Your task to perform on an android device: check data usage Image 0: 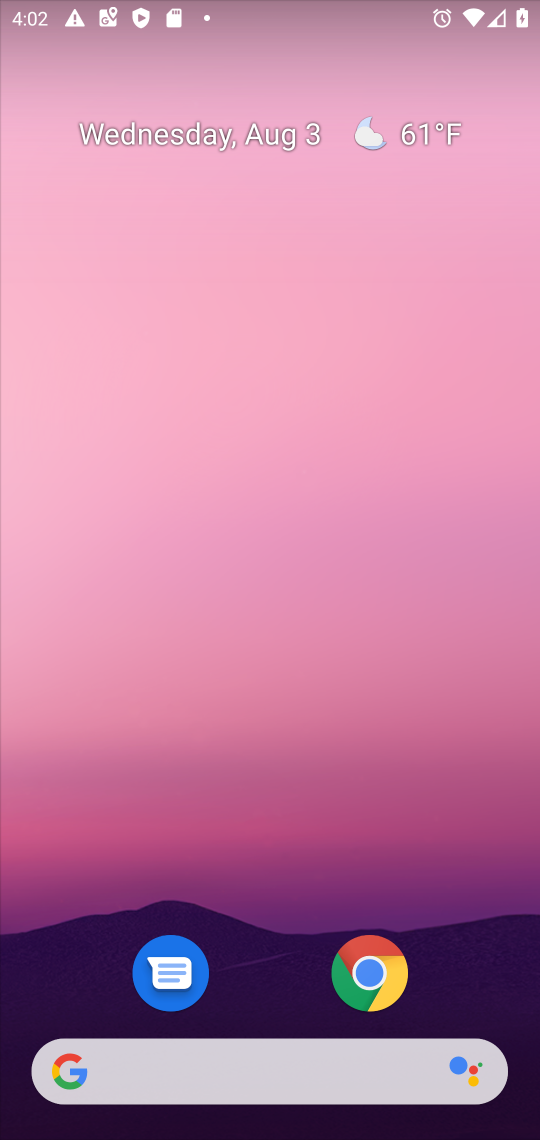
Step 0: drag from (279, 802) to (225, 0)
Your task to perform on an android device: check data usage Image 1: 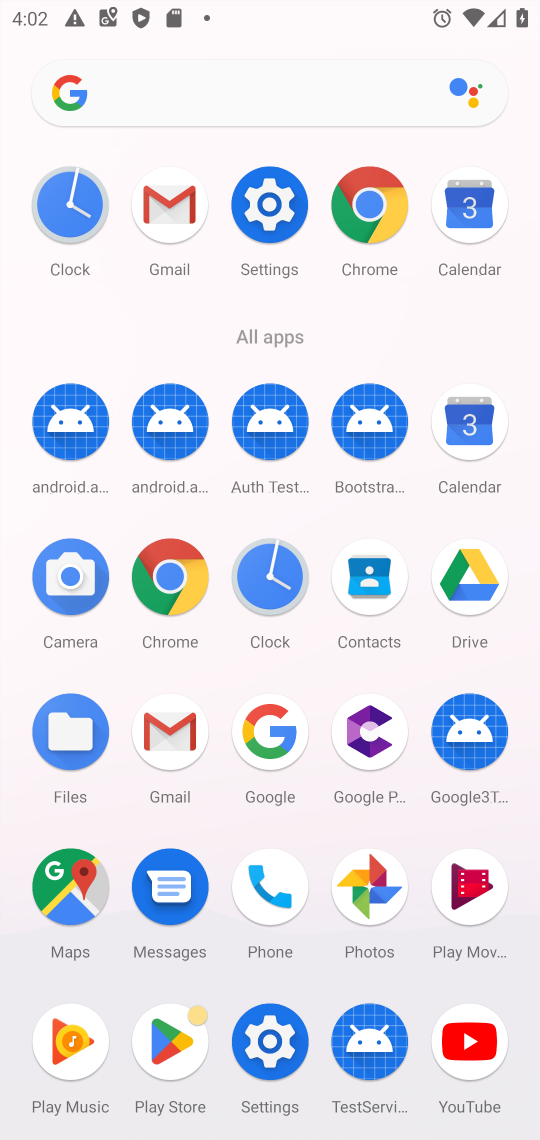
Step 1: click (272, 204)
Your task to perform on an android device: check data usage Image 2: 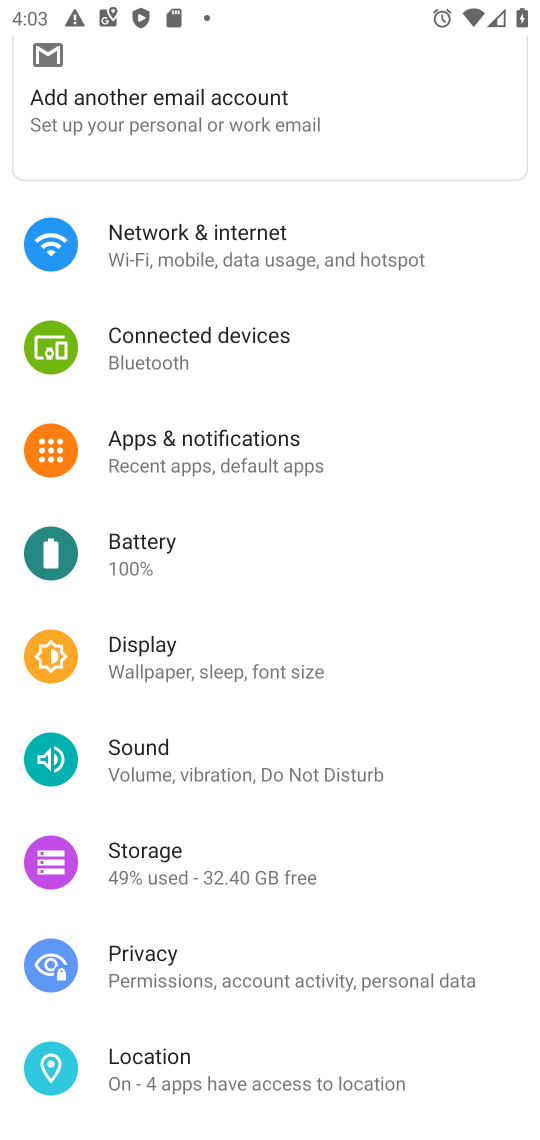
Step 2: click (252, 252)
Your task to perform on an android device: check data usage Image 3: 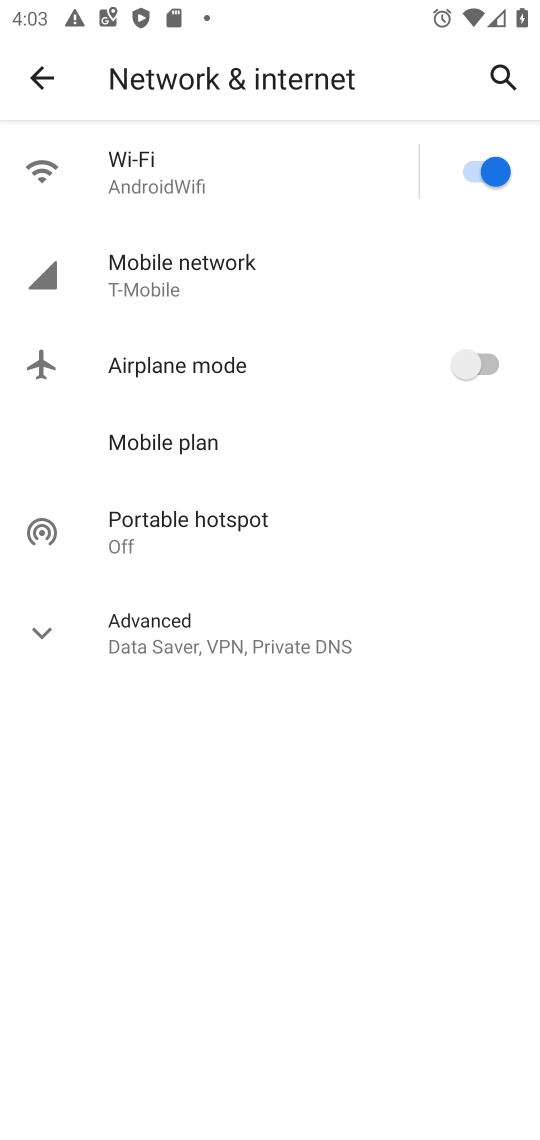
Step 3: click (252, 252)
Your task to perform on an android device: check data usage Image 4: 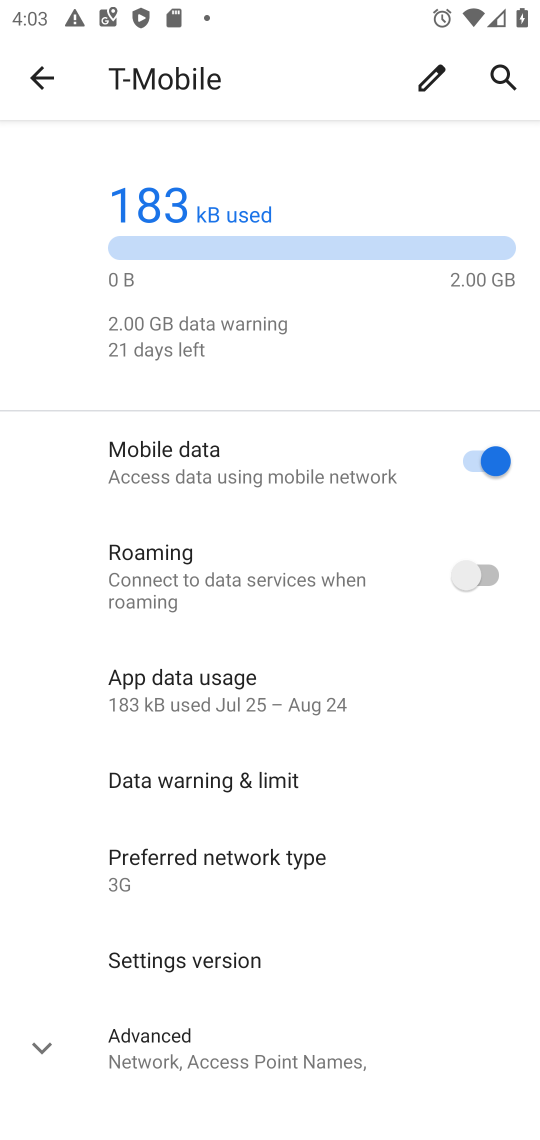
Step 4: task complete